Your task to perform on an android device: toggle improve location accuracy Image 0: 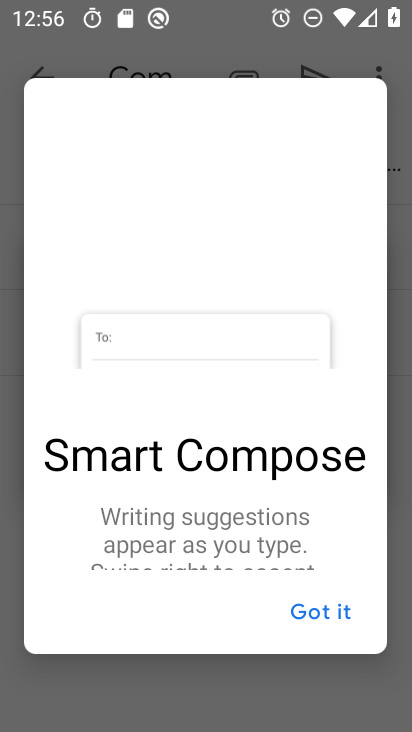
Step 0: click (308, 617)
Your task to perform on an android device: toggle improve location accuracy Image 1: 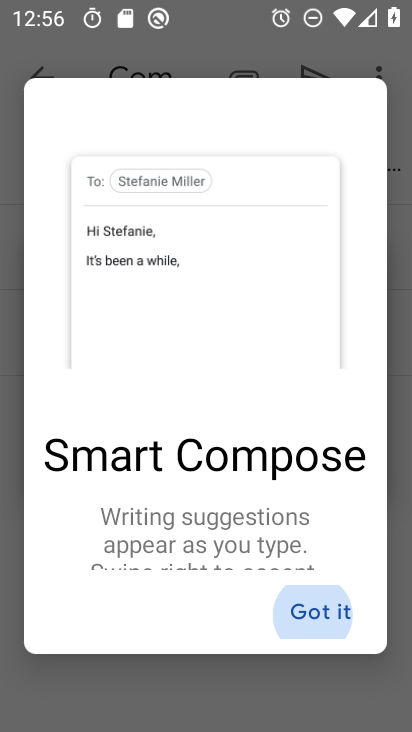
Step 1: press back button
Your task to perform on an android device: toggle improve location accuracy Image 2: 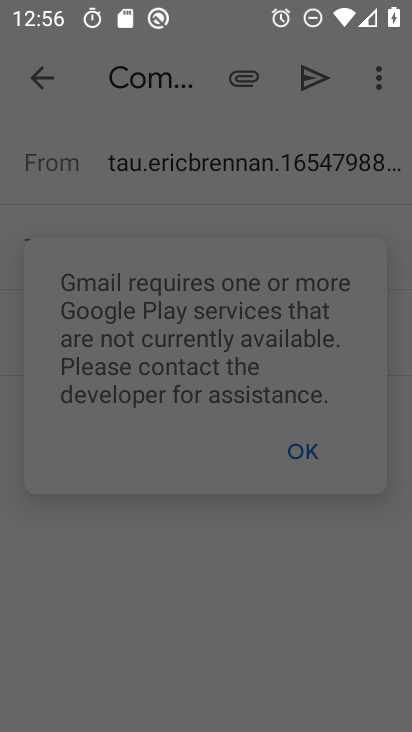
Step 2: press home button
Your task to perform on an android device: toggle improve location accuracy Image 3: 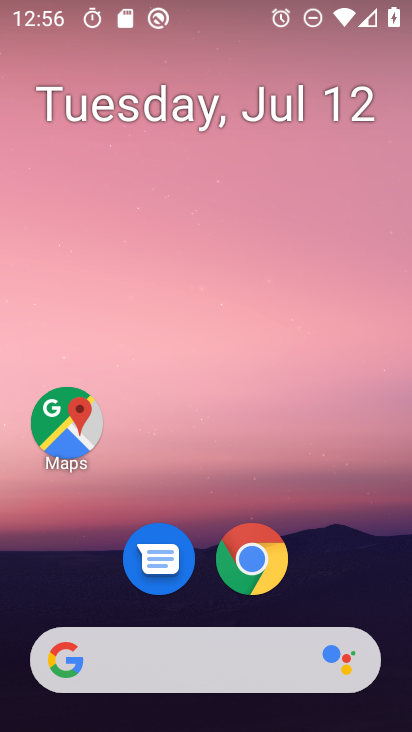
Step 3: drag from (182, 603) to (265, 2)
Your task to perform on an android device: toggle improve location accuracy Image 4: 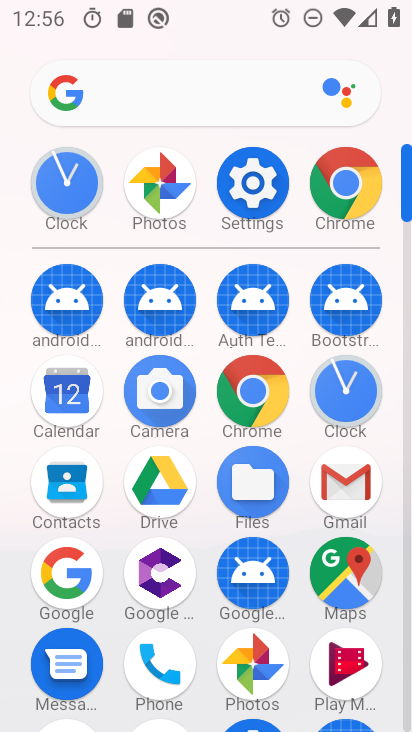
Step 4: click (257, 168)
Your task to perform on an android device: toggle improve location accuracy Image 5: 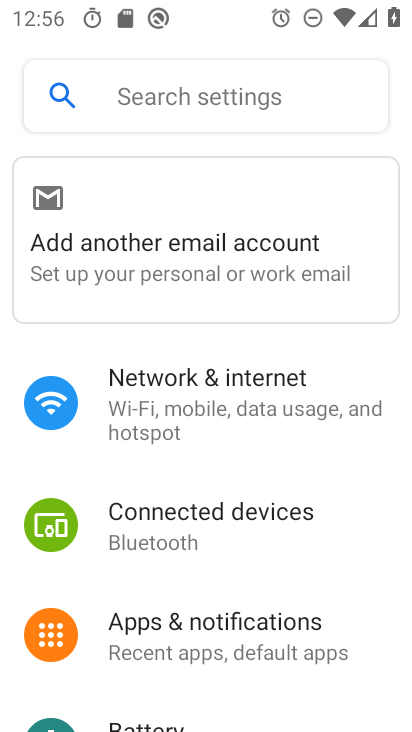
Step 5: drag from (199, 591) to (286, 124)
Your task to perform on an android device: toggle improve location accuracy Image 6: 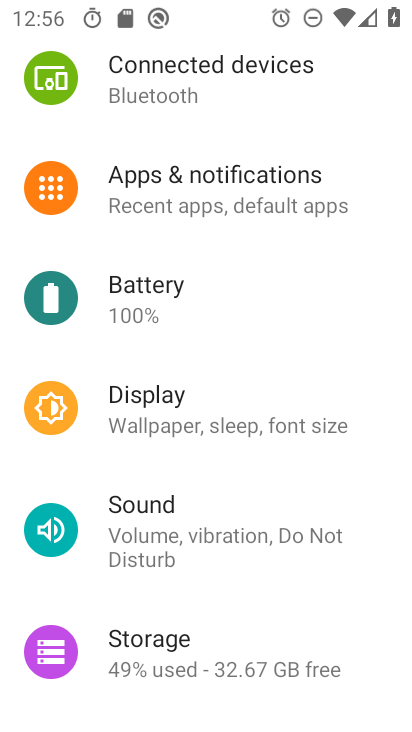
Step 6: drag from (194, 640) to (272, 222)
Your task to perform on an android device: toggle improve location accuracy Image 7: 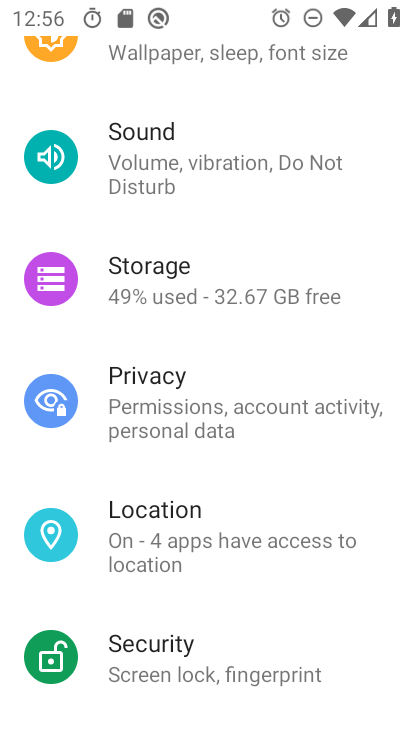
Step 7: click (181, 537)
Your task to perform on an android device: toggle improve location accuracy Image 8: 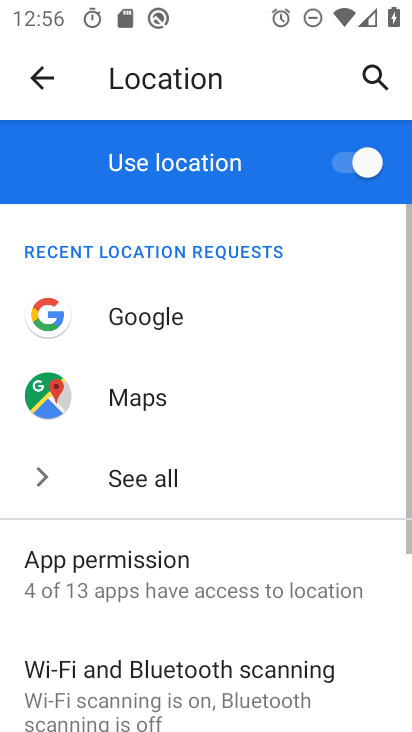
Step 8: drag from (145, 666) to (206, 263)
Your task to perform on an android device: toggle improve location accuracy Image 9: 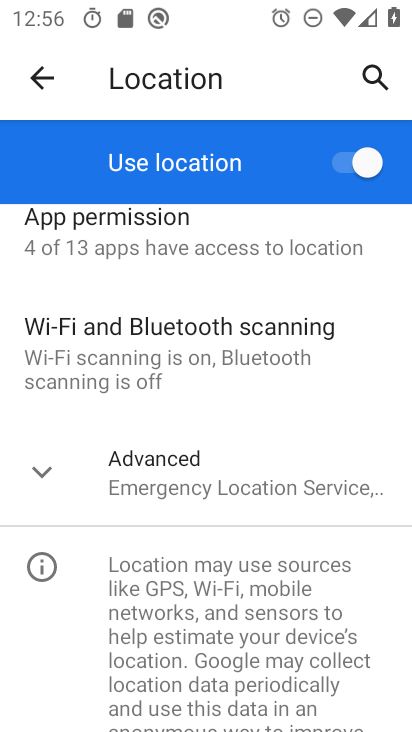
Step 9: click (189, 490)
Your task to perform on an android device: toggle improve location accuracy Image 10: 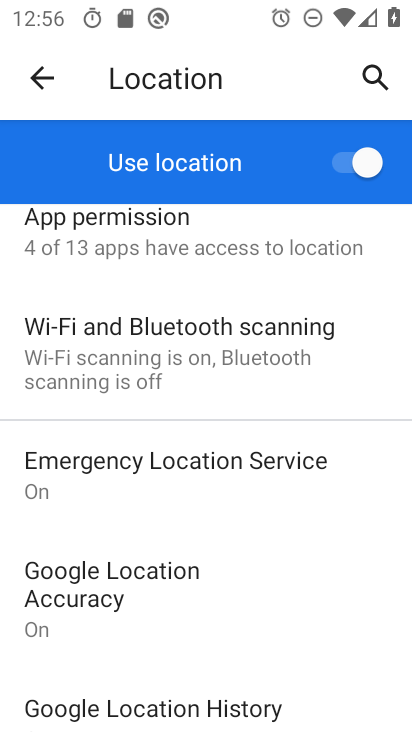
Step 10: click (106, 565)
Your task to perform on an android device: toggle improve location accuracy Image 11: 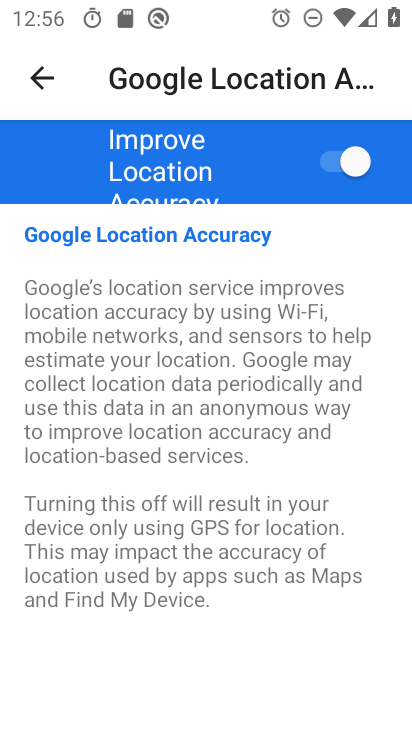
Step 11: click (361, 163)
Your task to perform on an android device: toggle improve location accuracy Image 12: 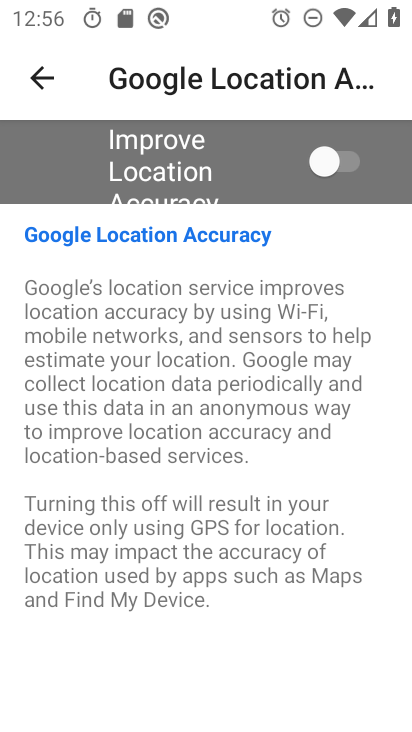
Step 12: task complete